Your task to perform on an android device: toggle wifi Image 0: 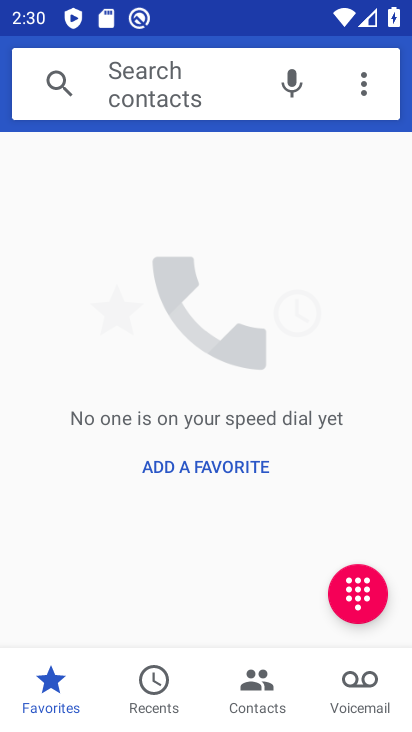
Step 0: press home button
Your task to perform on an android device: toggle wifi Image 1: 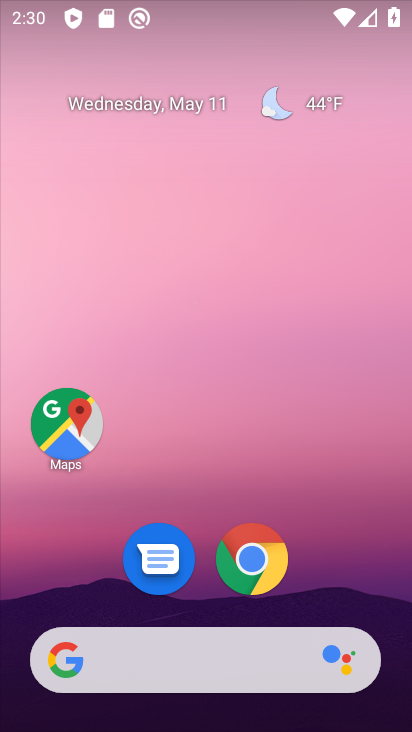
Step 1: drag from (331, 579) to (244, 112)
Your task to perform on an android device: toggle wifi Image 2: 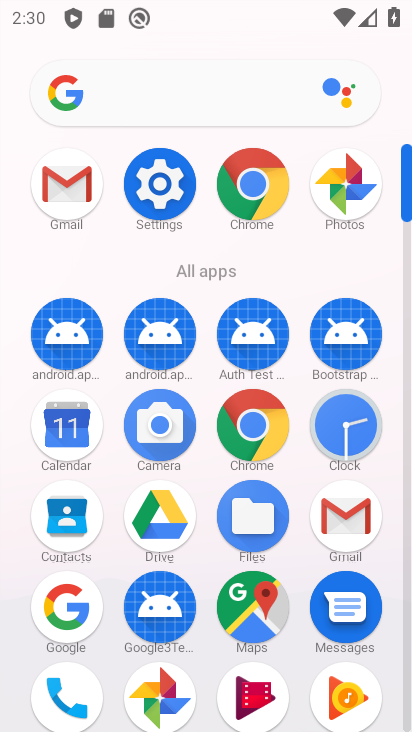
Step 2: click (163, 192)
Your task to perform on an android device: toggle wifi Image 3: 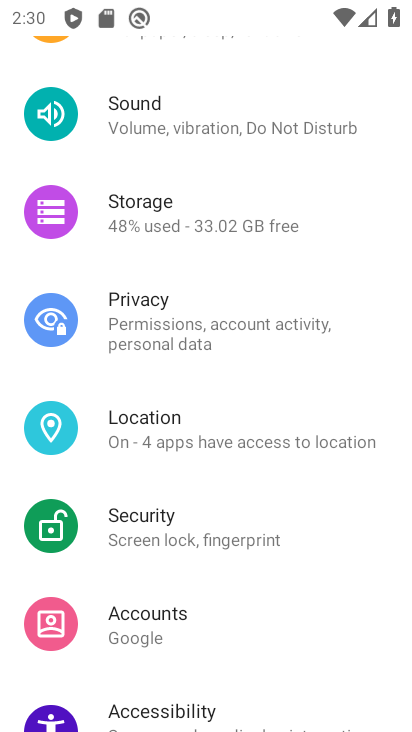
Step 3: drag from (211, 92) to (226, 560)
Your task to perform on an android device: toggle wifi Image 4: 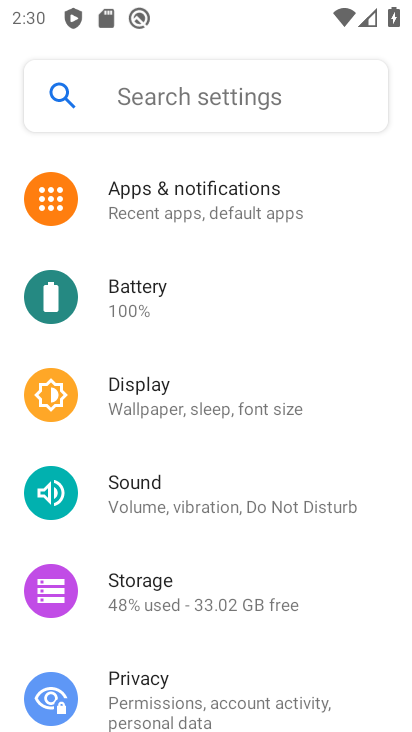
Step 4: drag from (222, 227) to (197, 683)
Your task to perform on an android device: toggle wifi Image 5: 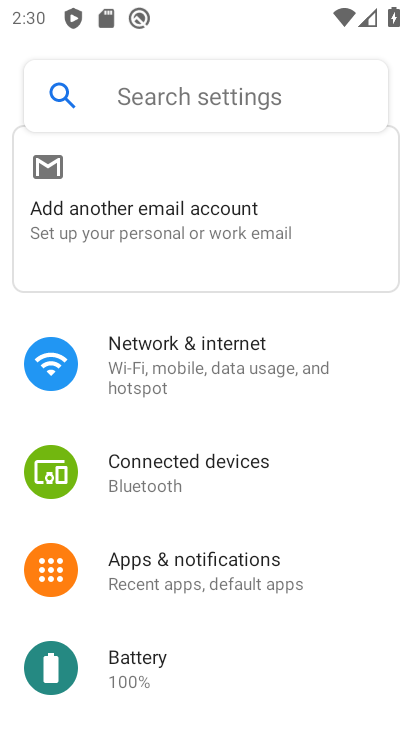
Step 5: click (214, 348)
Your task to perform on an android device: toggle wifi Image 6: 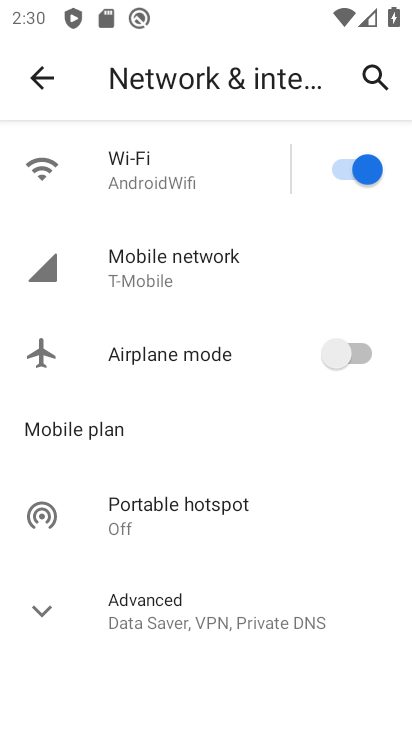
Step 6: click (366, 174)
Your task to perform on an android device: toggle wifi Image 7: 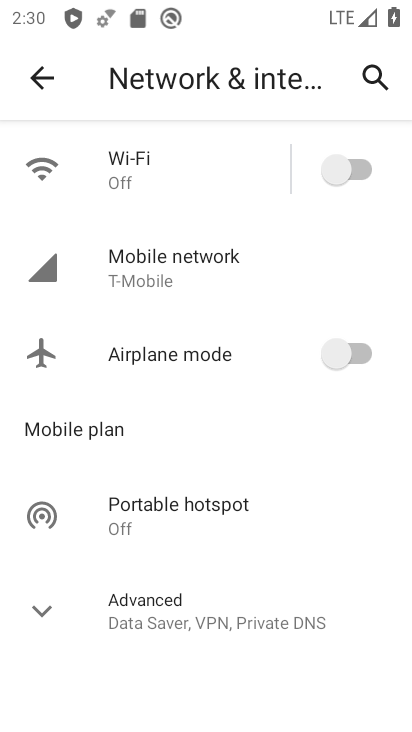
Step 7: task complete